Your task to perform on an android device: Go to Google Image 0: 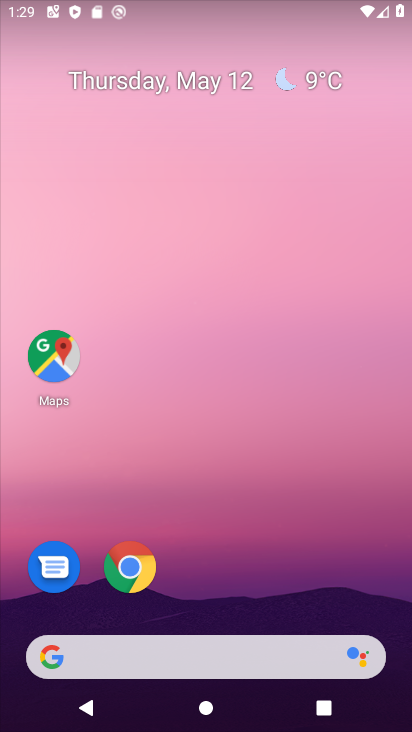
Step 0: drag from (221, 569) to (243, 187)
Your task to perform on an android device: Go to Google Image 1: 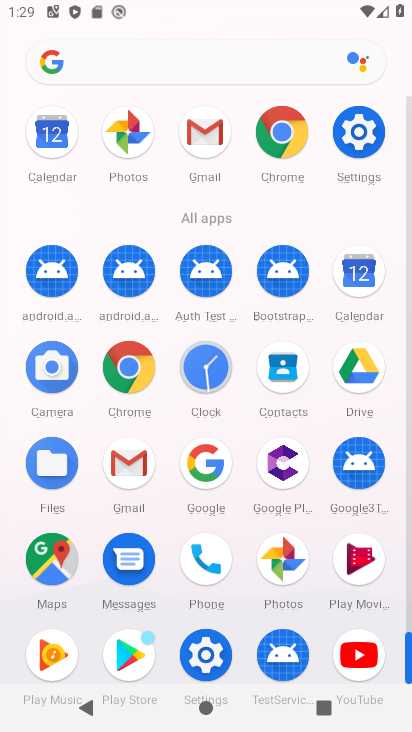
Step 1: click (223, 496)
Your task to perform on an android device: Go to Google Image 2: 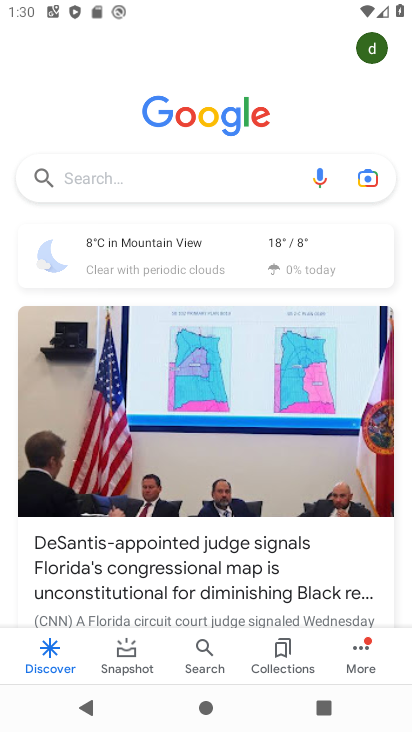
Step 2: task complete